Your task to perform on an android device: empty trash in the gmail app Image 0: 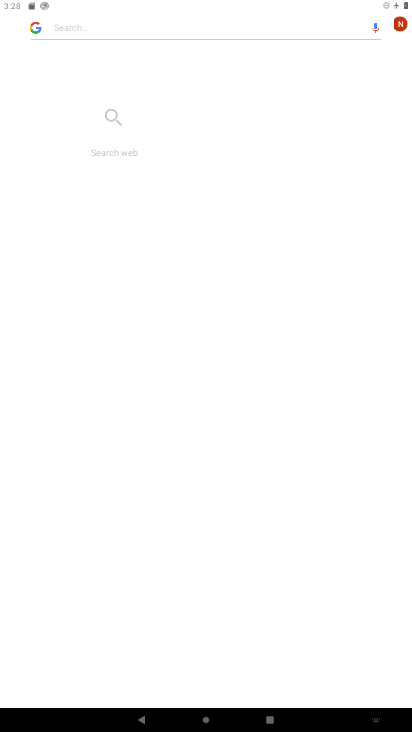
Step 0: press home button
Your task to perform on an android device: empty trash in the gmail app Image 1: 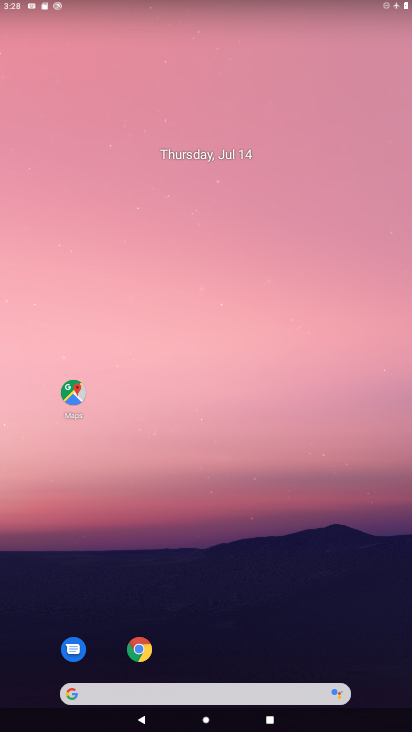
Step 1: drag from (199, 574) to (195, 181)
Your task to perform on an android device: empty trash in the gmail app Image 2: 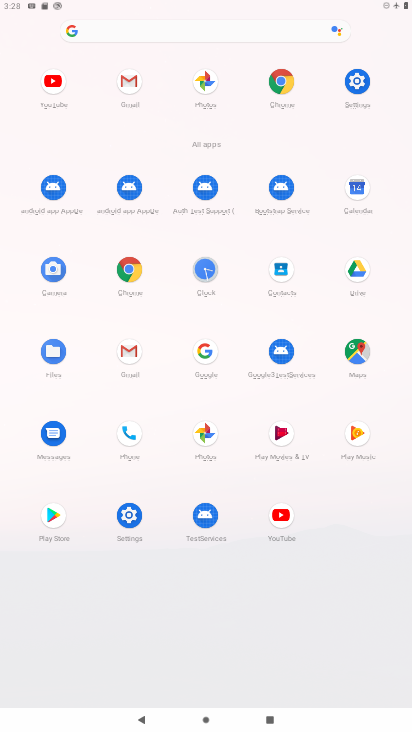
Step 2: click (118, 344)
Your task to perform on an android device: empty trash in the gmail app Image 3: 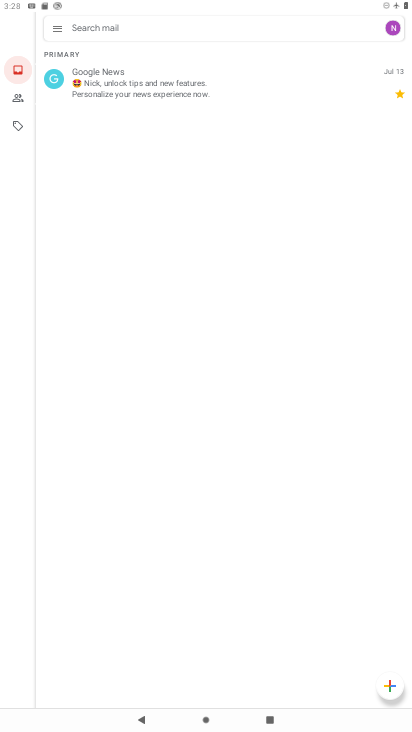
Step 3: click (52, 28)
Your task to perform on an android device: empty trash in the gmail app Image 4: 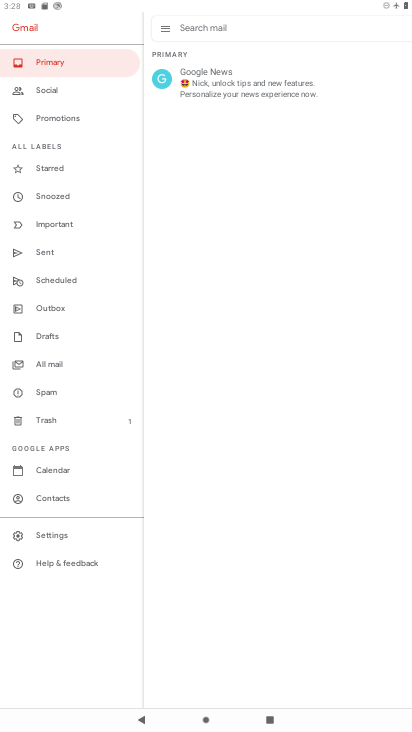
Step 4: click (45, 418)
Your task to perform on an android device: empty trash in the gmail app Image 5: 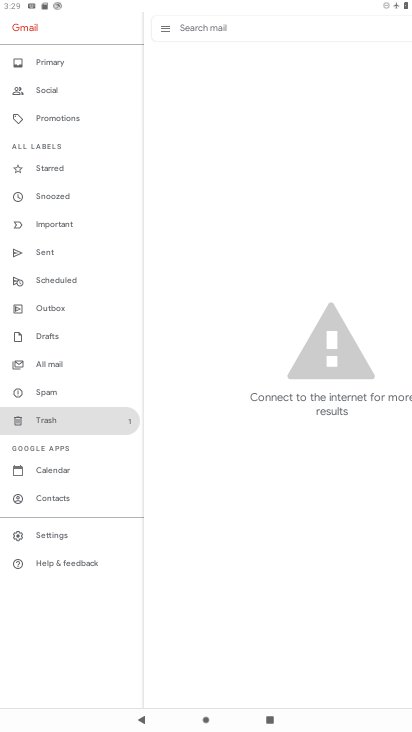
Step 5: task complete